Your task to perform on an android device: open app "AliExpress" Image 0: 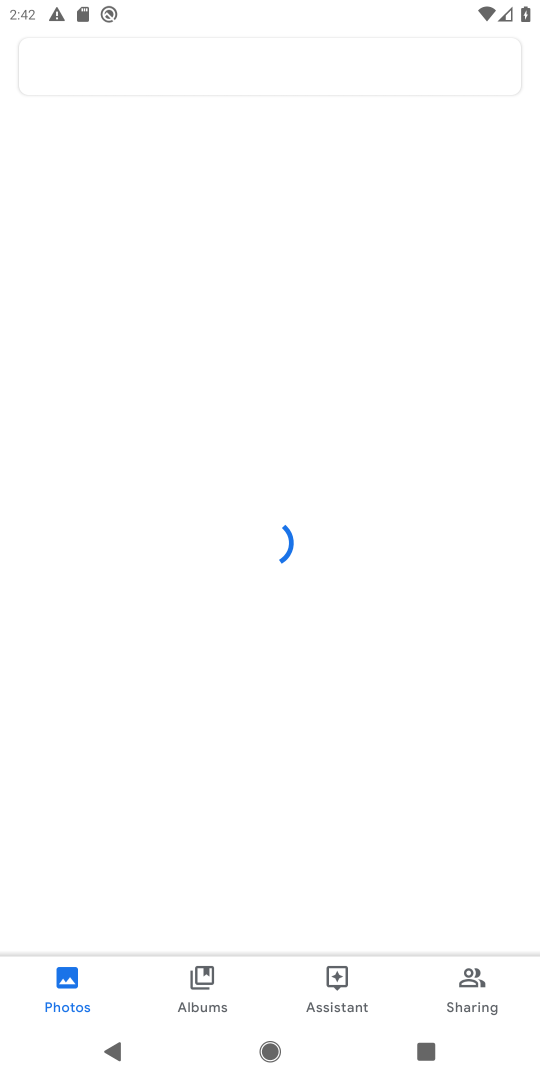
Step 0: press home button
Your task to perform on an android device: open app "AliExpress" Image 1: 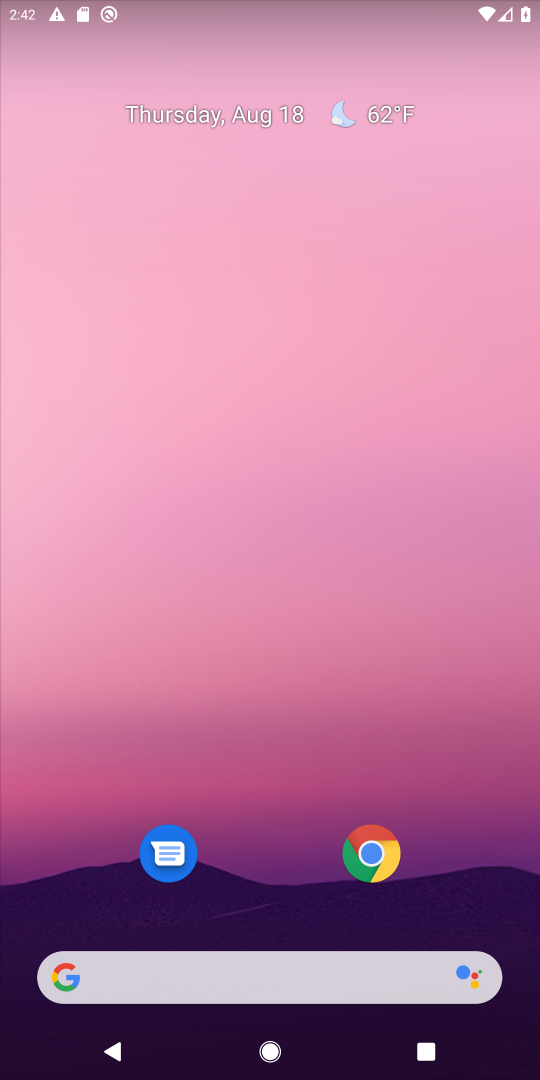
Step 1: drag from (467, 907) to (323, 91)
Your task to perform on an android device: open app "AliExpress" Image 2: 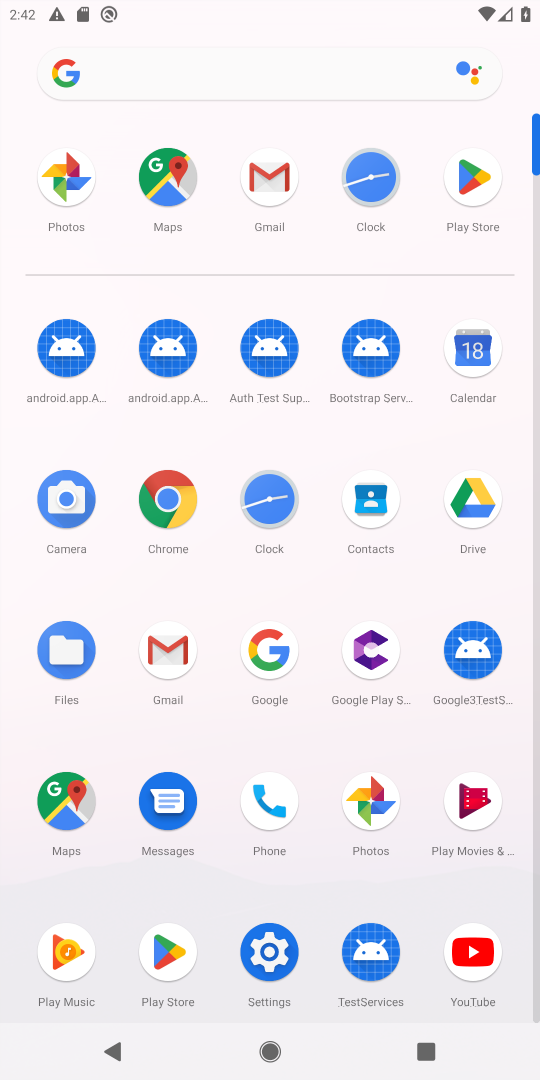
Step 2: click (478, 185)
Your task to perform on an android device: open app "AliExpress" Image 3: 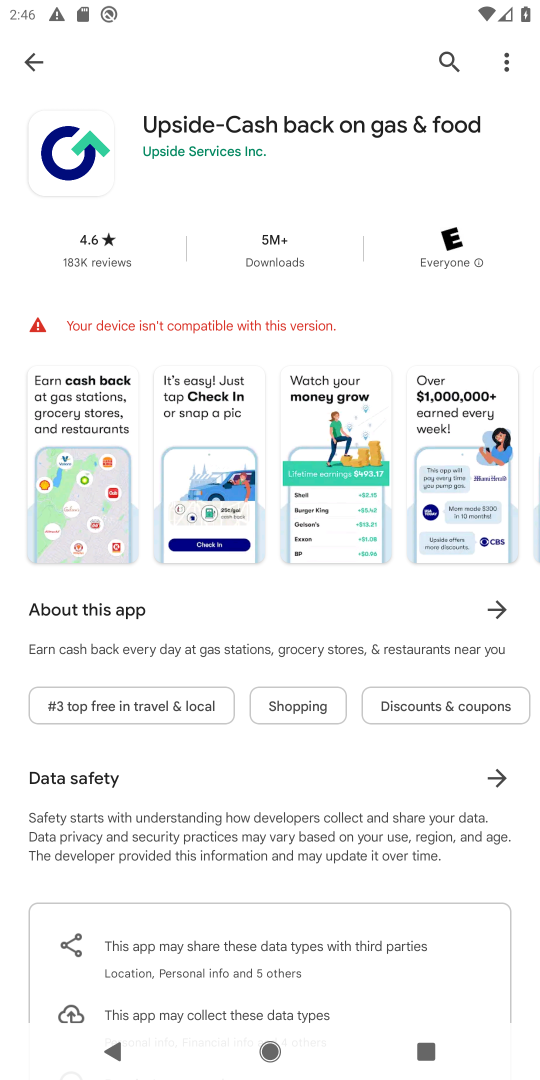
Step 3: press back button
Your task to perform on an android device: open app "AliExpress" Image 4: 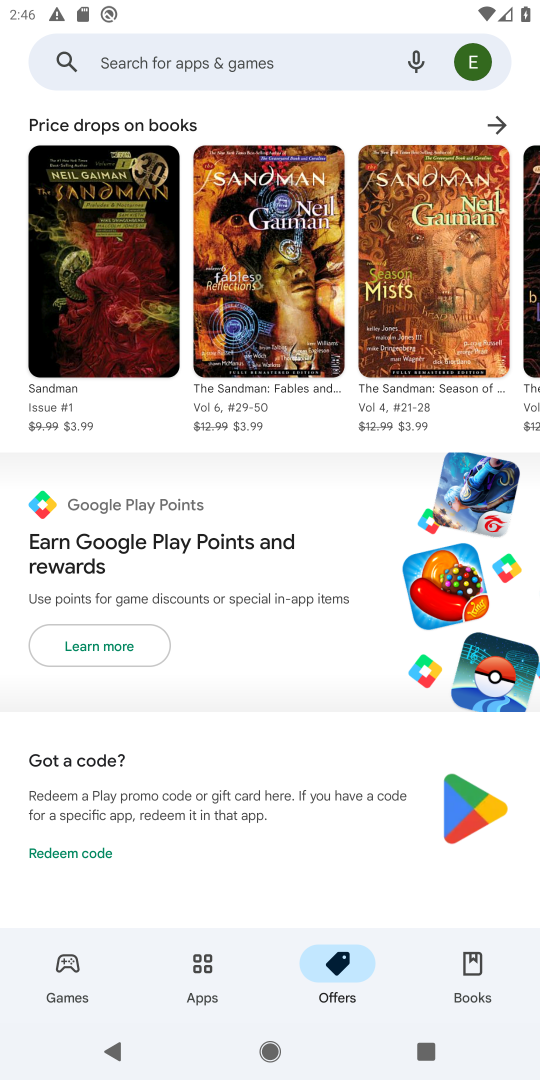
Step 4: click (207, 51)
Your task to perform on an android device: open app "AliExpress" Image 5: 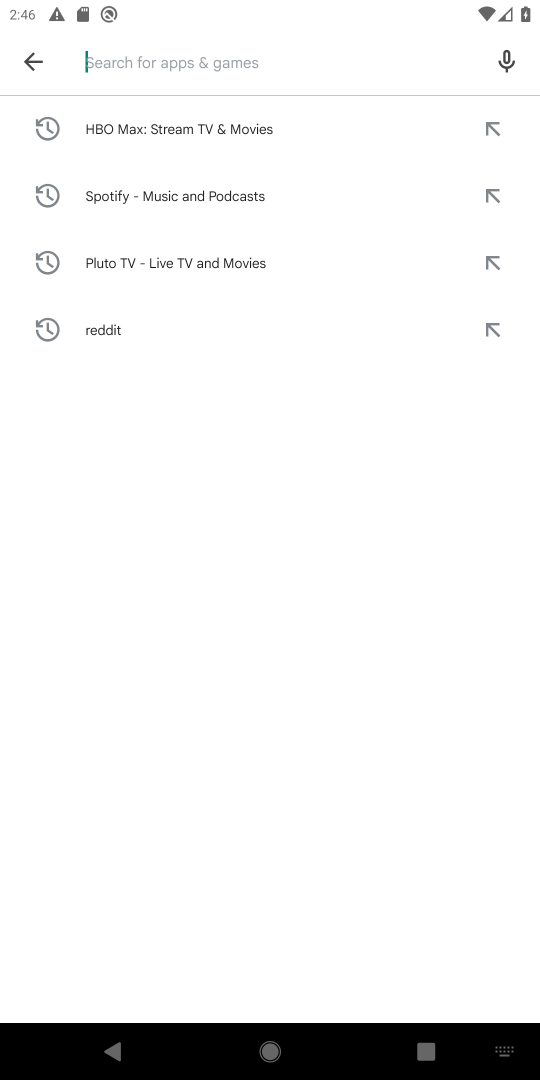
Step 5: type "AliExpress"
Your task to perform on an android device: open app "AliExpress" Image 6: 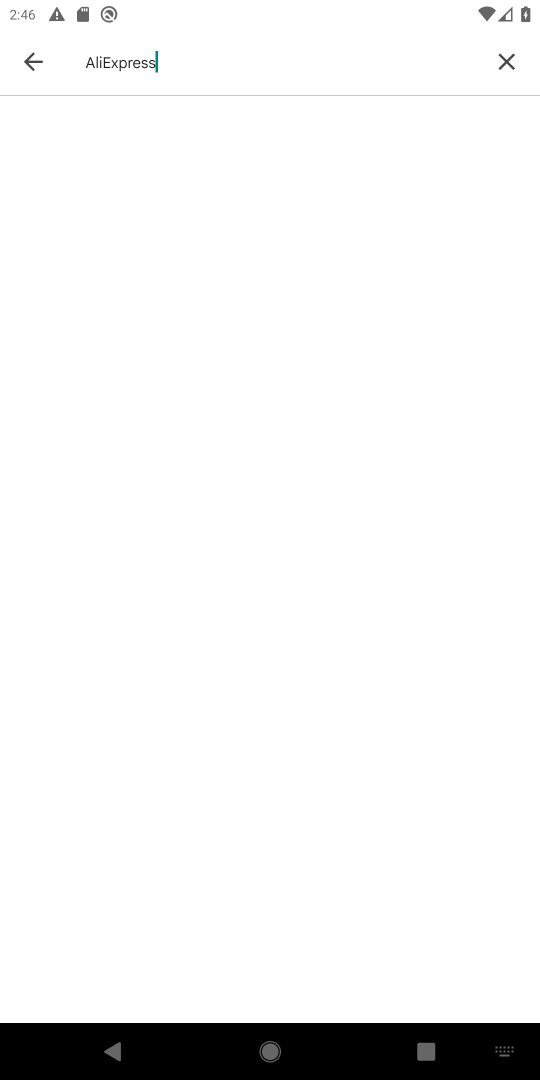
Step 6: task complete